Your task to perform on an android device: Check the news Image 0: 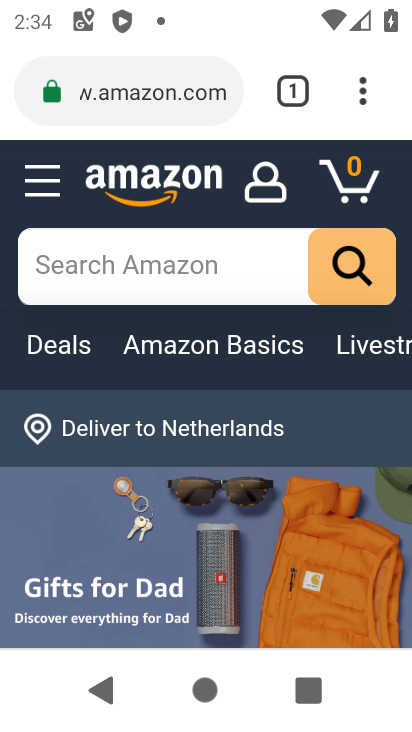
Step 0: press home button
Your task to perform on an android device: Check the news Image 1: 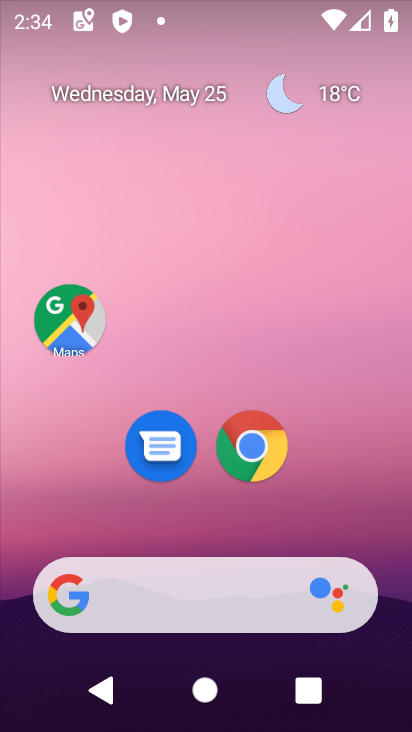
Step 1: task complete